Your task to perform on an android device: Open the stopwatch Image 0: 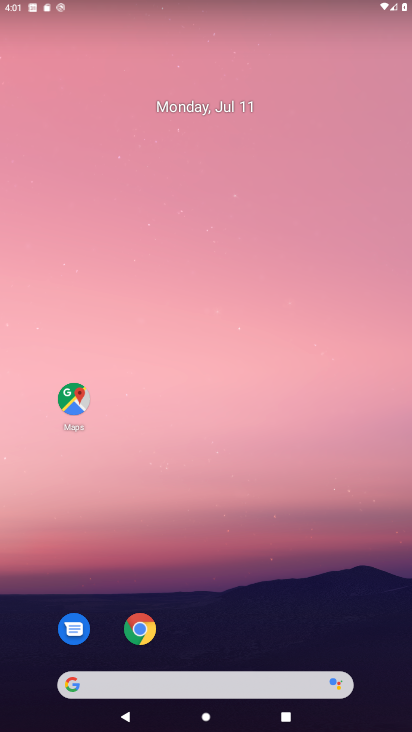
Step 0: drag from (383, 717) to (351, 121)
Your task to perform on an android device: Open the stopwatch Image 1: 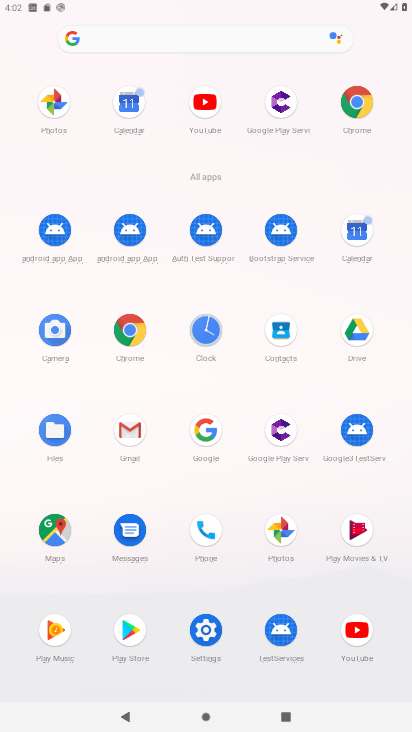
Step 1: click (206, 324)
Your task to perform on an android device: Open the stopwatch Image 2: 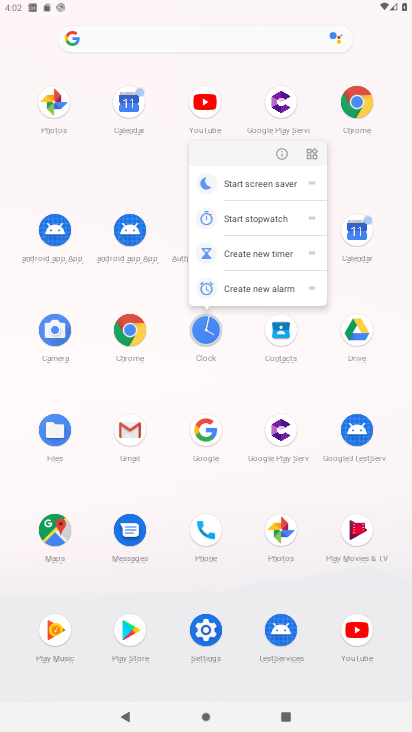
Step 2: click (201, 332)
Your task to perform on an android device: Open the stopwatch Image 3: 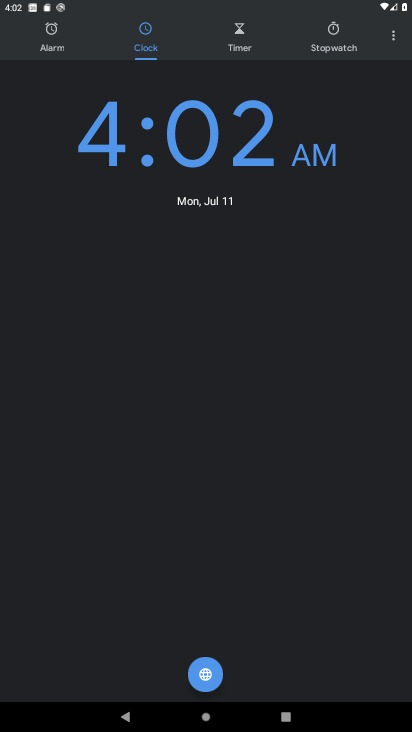
Step 3: click (339, 35)
Your task to perform on an android device: Open the stopwatch Image 4: 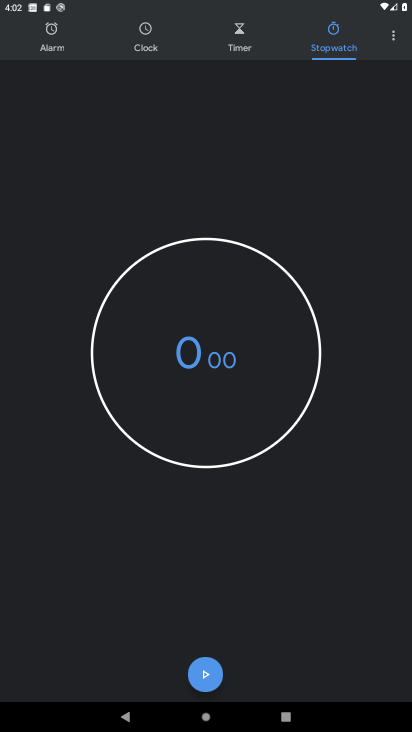
Step 4: task complete